Your task to perform on an android device: change the clock style Image 0: 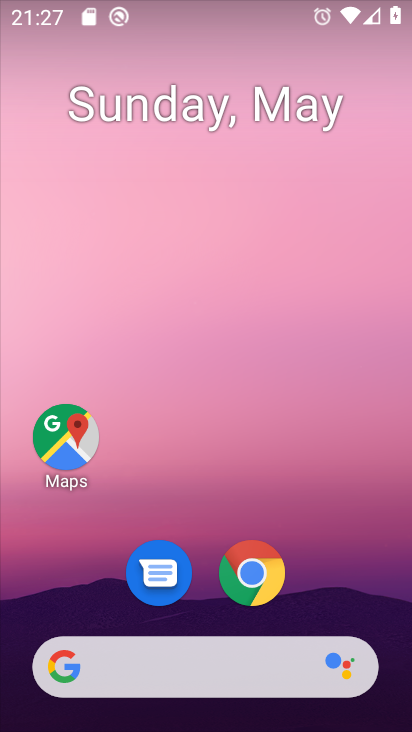
Step 0: drag from (234, 470) to (236, 9)
Your task to perform on an android device: change the clock style Image 1: 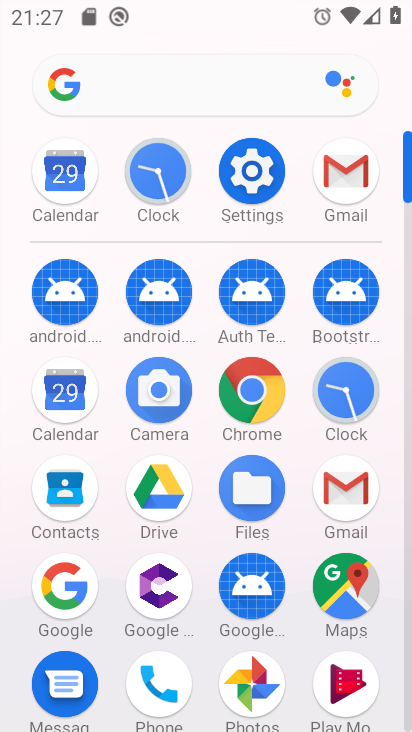
Step 1: click (165, 168)
Your task to perform on an android device: change the clock style Image 2: 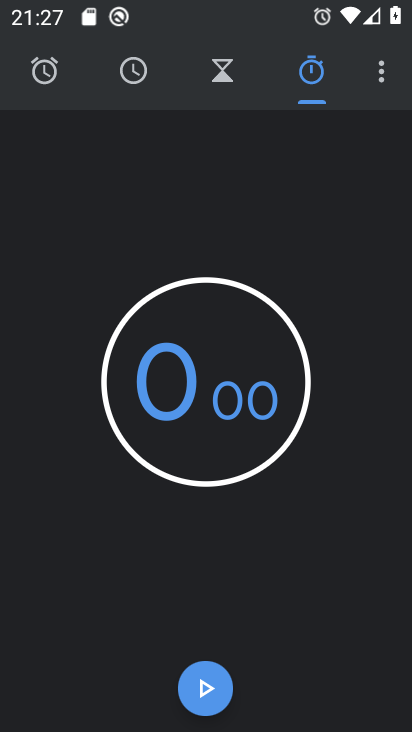
Step 2: click (383, 82)
Your task to perform on an android device: change the clock style Image 3: 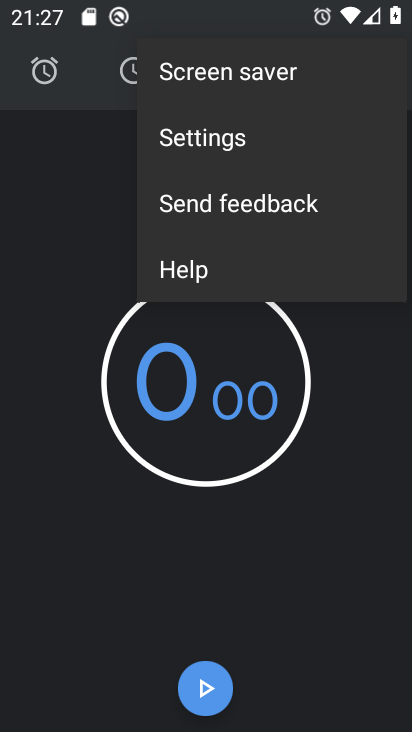
Step 3: click (278, 130)
Your task to perform on an android device: change the clock style Image 4: 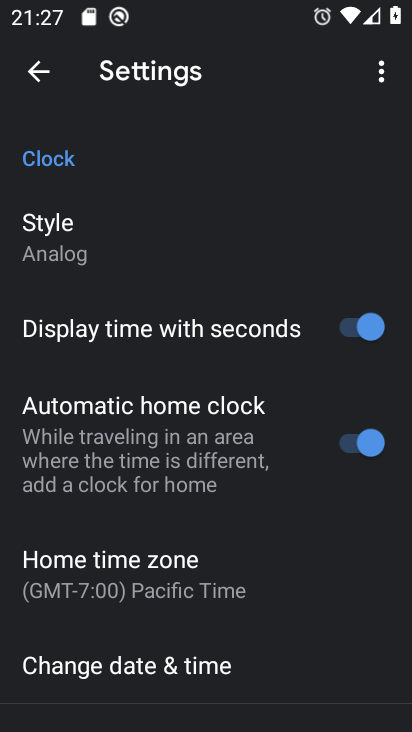
Step 4: click (77, 241)
Your task to perform on an android device: change the clock style Image 5: 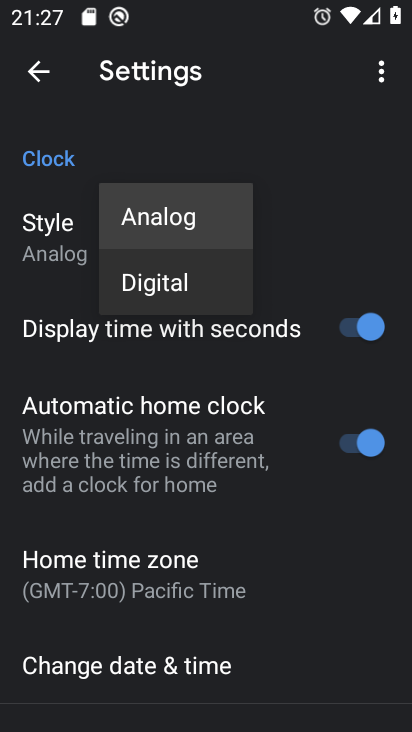
Step 5: click (142, 276)
Your task to perform on an android device: change the clock style Image 6: 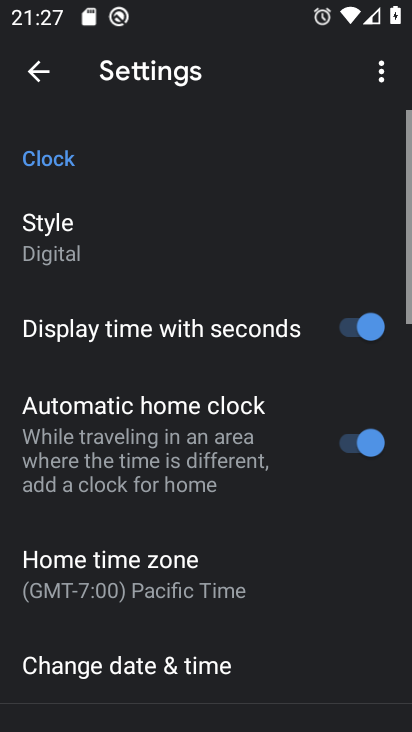
Step 6: click (38, 68)
Your task to perform on an android device: change the clock style Image 7: 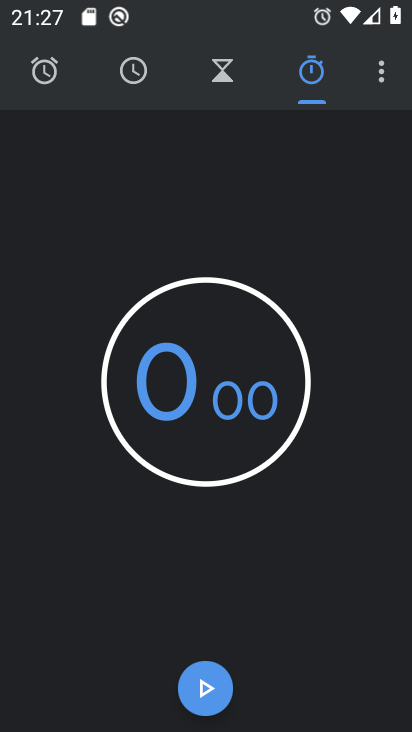
Step 7: click (129, 68)
Your task to perform on an android device: change the clock style Image 8: 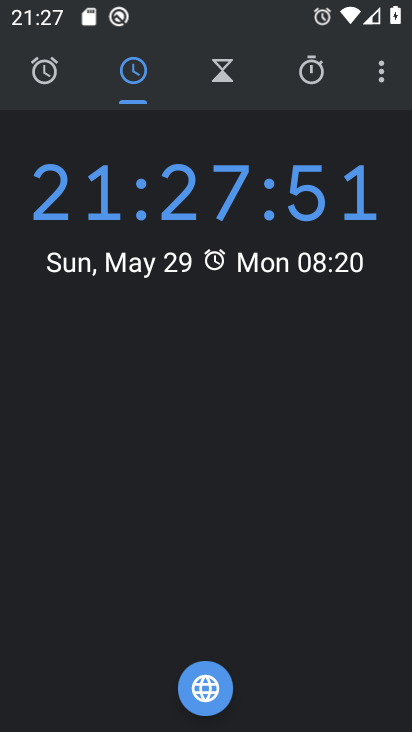
Step 8: task complete